Your task to perform on an android device: Is it going to rain this weekend? Image 0: 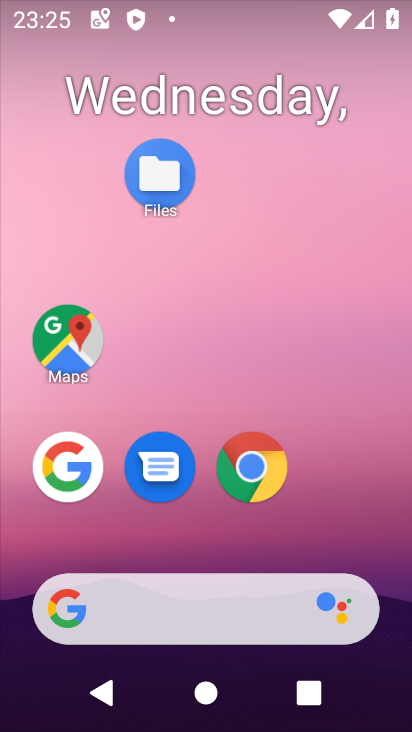
Step 0: drag from (209, 565) to (113, 86)
Your task to perform on an android device: Is it going to rain this weekend? Image 1: 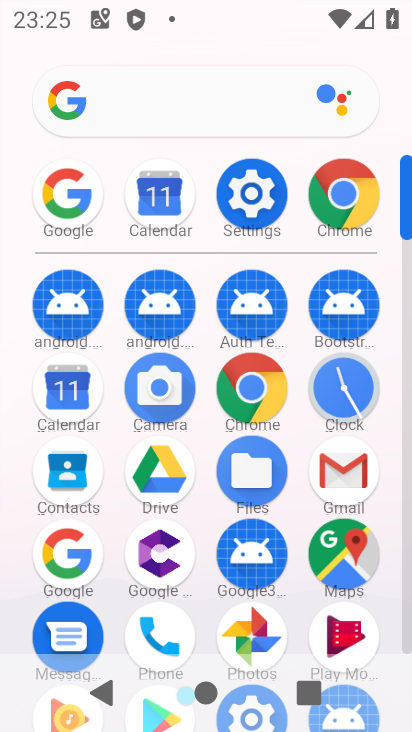
Step 1: click (61, 188)
Your task to perform on an android device: Is it going to rain this weekend? Image 2: 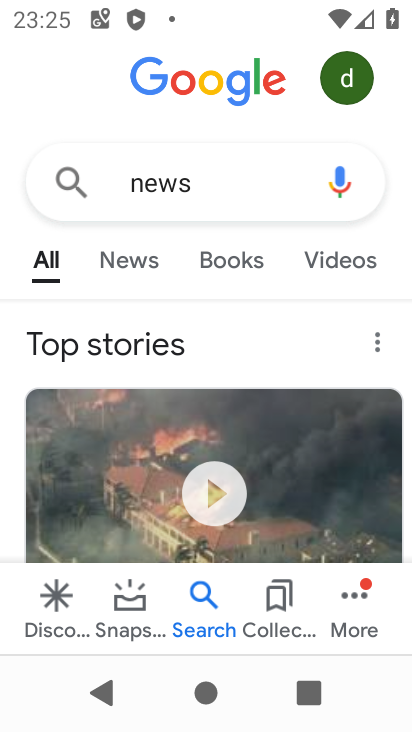
Step 2: click (217, 191)
Your task to perform on an android device: Is it going to rain this weekend? Image 3: 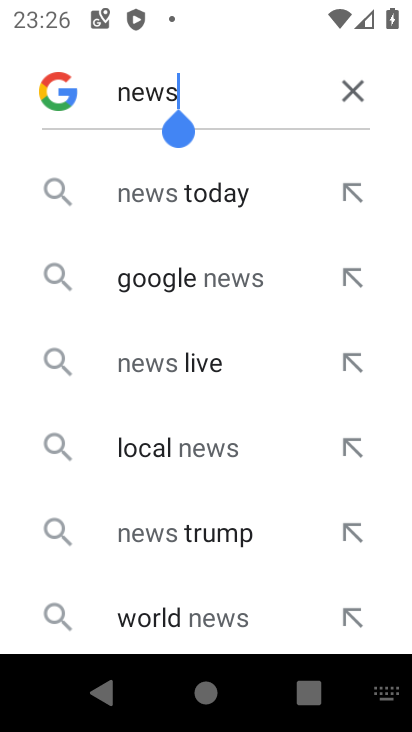
Step 3: click (353, 78)
Your task to perform on an android device: Is it going to rain this weekend? Image 4: 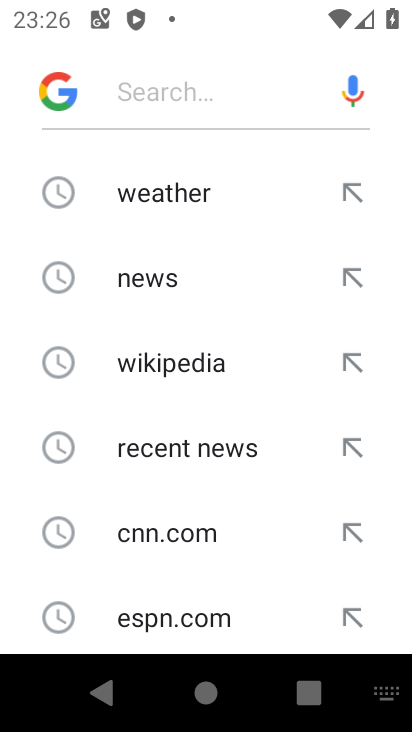
Step 4: click (117, 207)
Your task to perform on an android device: Is it going to rain this weekend? Image 5: 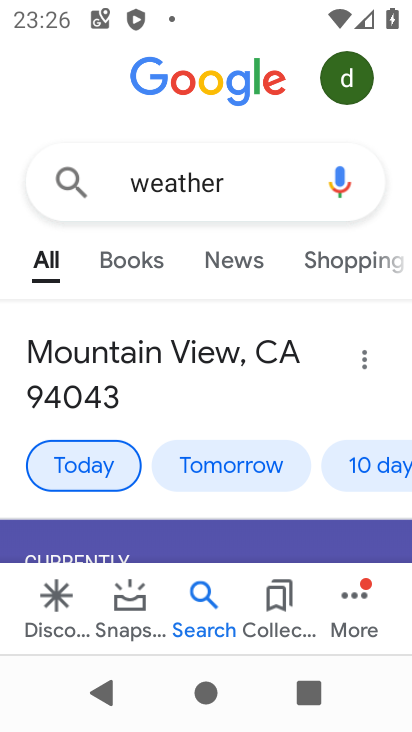
Step 5: task complete